Your task to perform on an android device: When is my next appointment? Image 0: 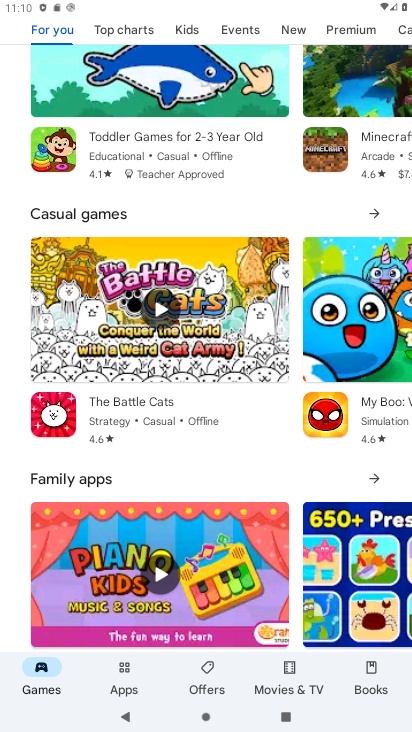
Step 0: press home button
Your task to perform on an android device: When is my next appointment? Image 1: 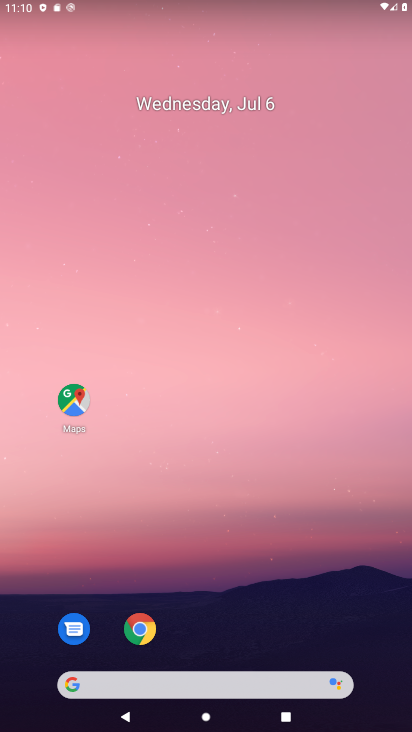
Step 1: drag from (315, 608) to (336, 89)
Your task to perform on an android device: When is my next appointment? Image 2: 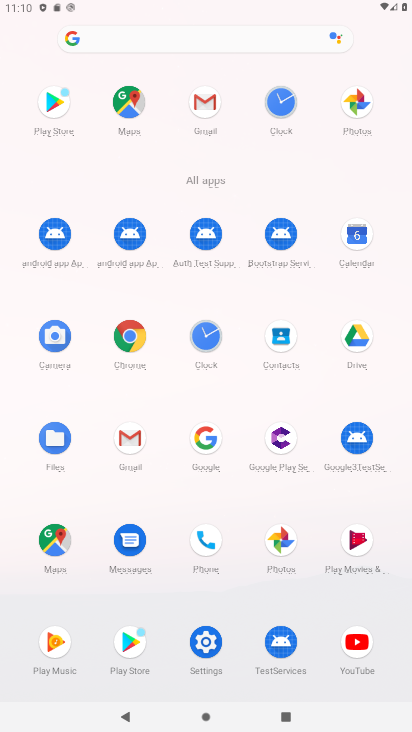
Step 2: click (353, 235)
Your task to perform on an android device: When is my next appointment? Image 3: 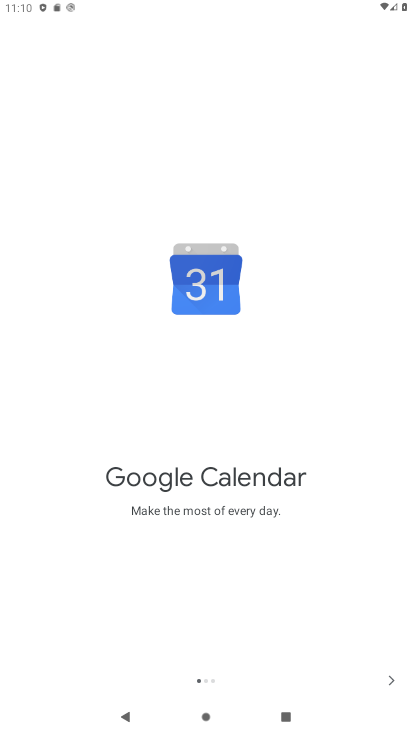
Step 3: click (390, 683)
Your task to perform on an android device: When is my next appointment? Image 4: 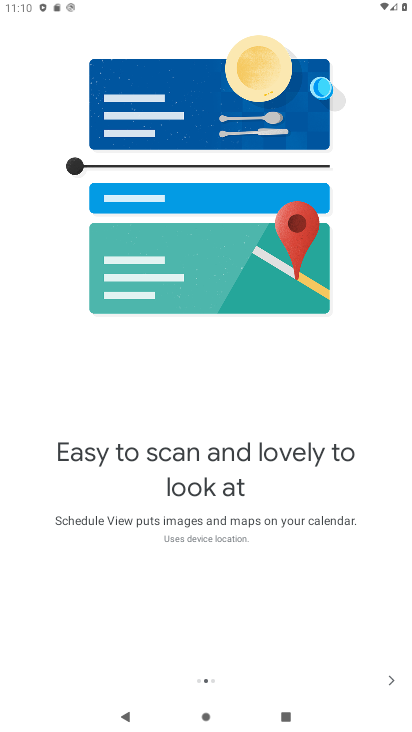
Step 4: click (388, 680)
Your task to perform on an android device: When is my next appointment? Image 5: 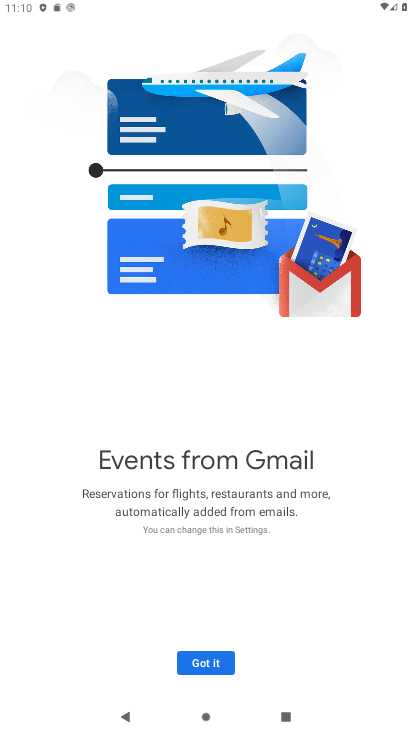
Step 5: click (221, 658)
Your task to perform on an android device: When is my next appointment? Image 6: 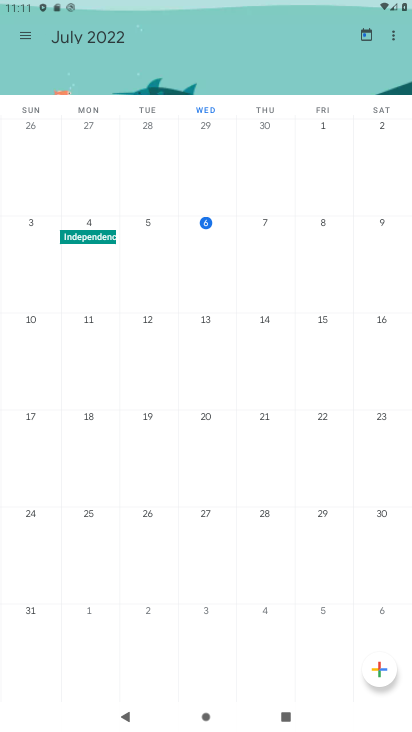
Step 6: click (326, 225)
Your task to perform on an android device: When is my next appointment? Image 7: 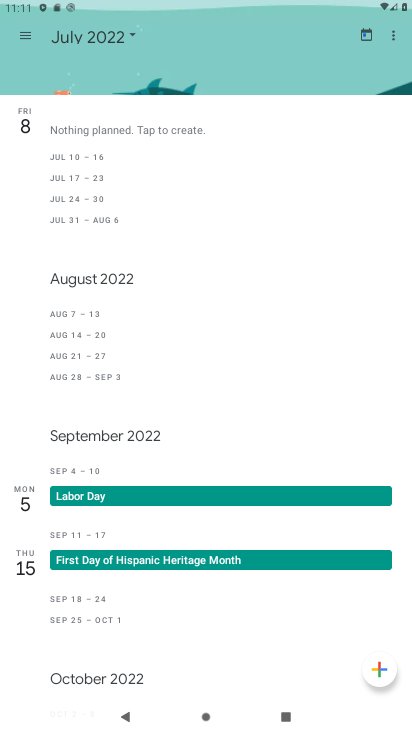
Step 7: task complete